Your task to perform on an android device: turn off sleep mode Image 0: 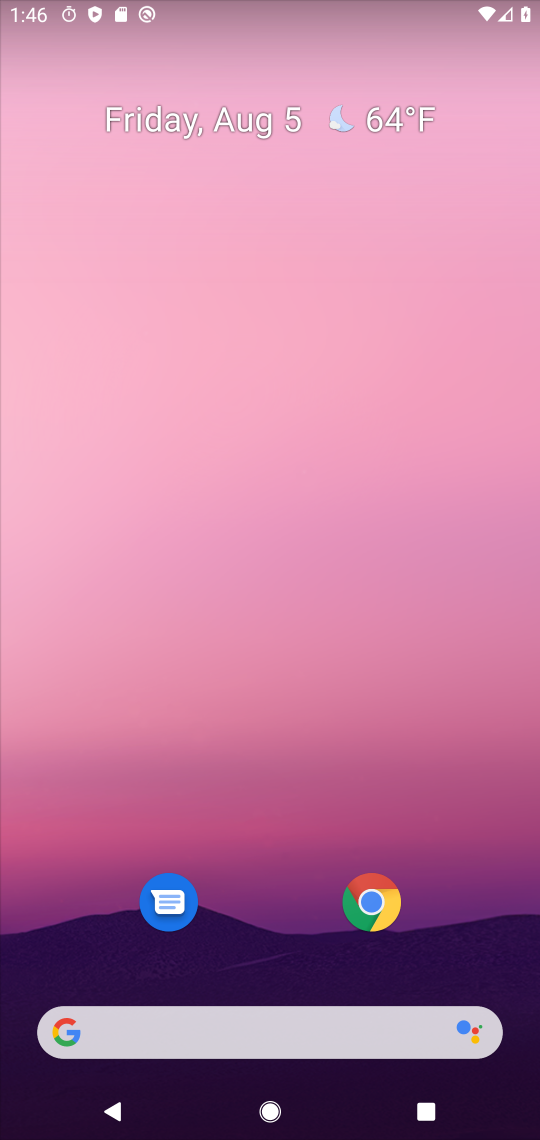
Step 0: press home button
Your task to perform on an android device: turn off sleep mode Image 1: 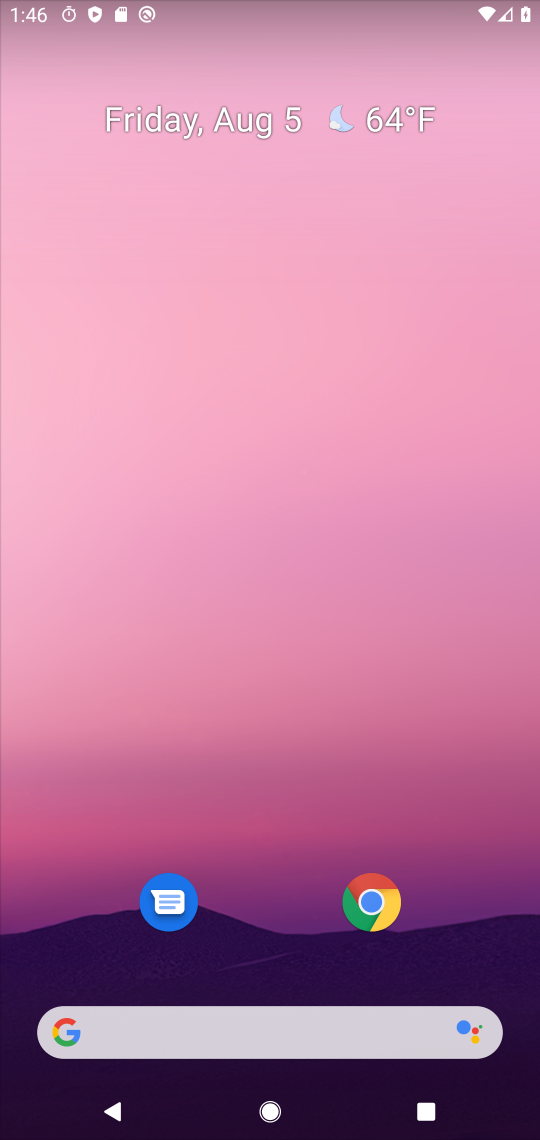
Step 1: click (341, 263)
Your task to perform on an android device: turn off sleep mode Image 2: 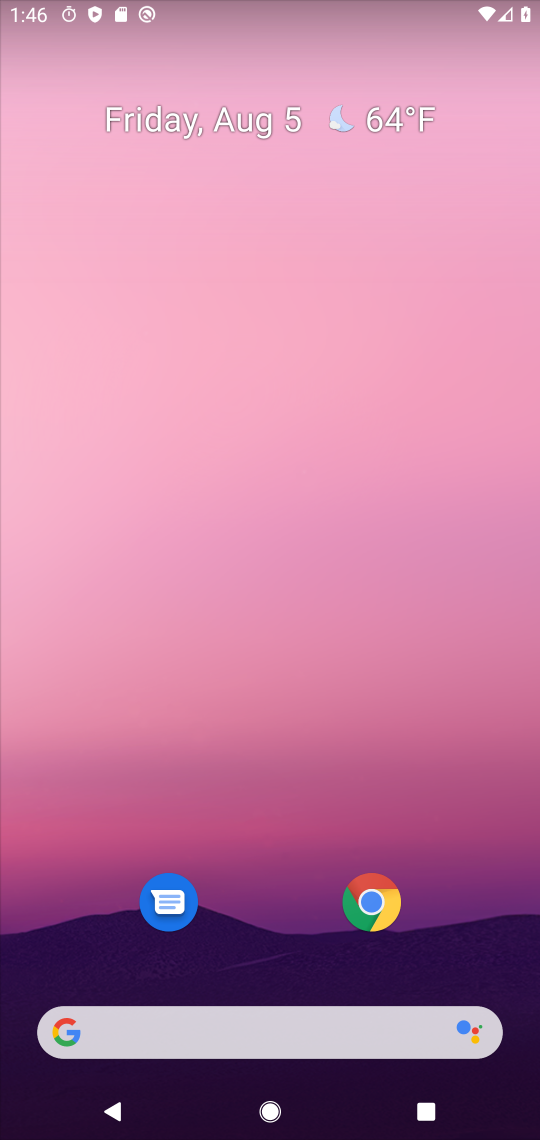
Step 2: drag from (329, 1050) to (294, 97)
Your task to perform on an android device: turn off sleep mode Image 3: 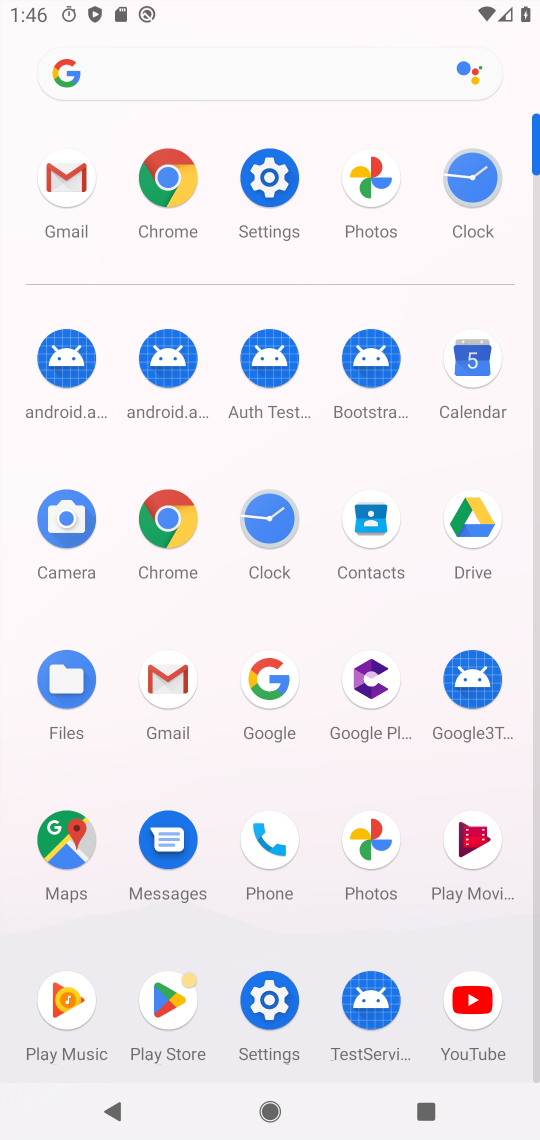
Step 3: click (265, 196)
Your task to perform on an android device: turn off sleep mode Image 4: 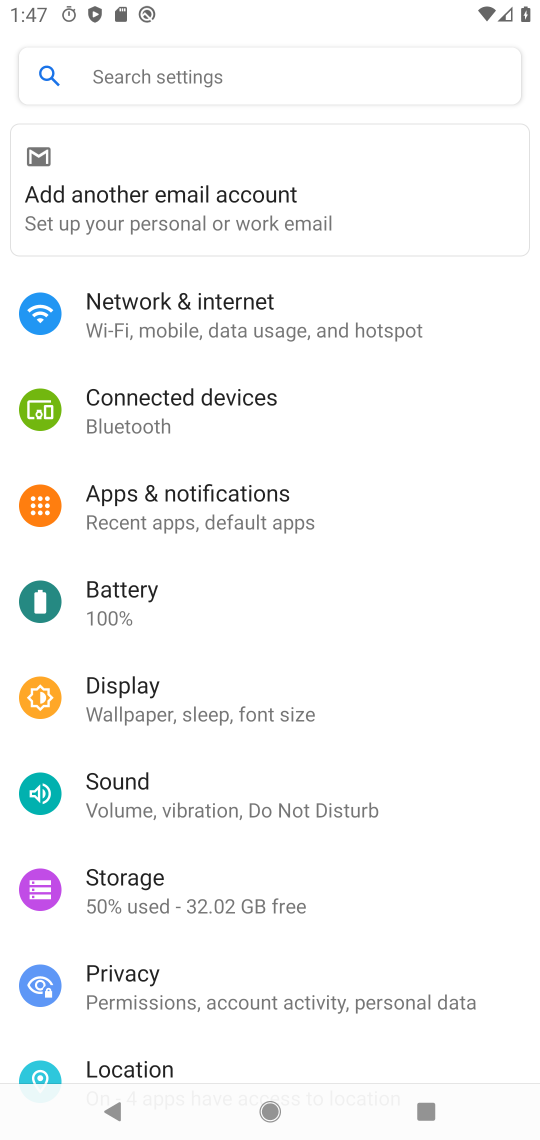
Step 4: click (174, 76)
Your task to perform on an android device: turn off sleep mode Image 5: 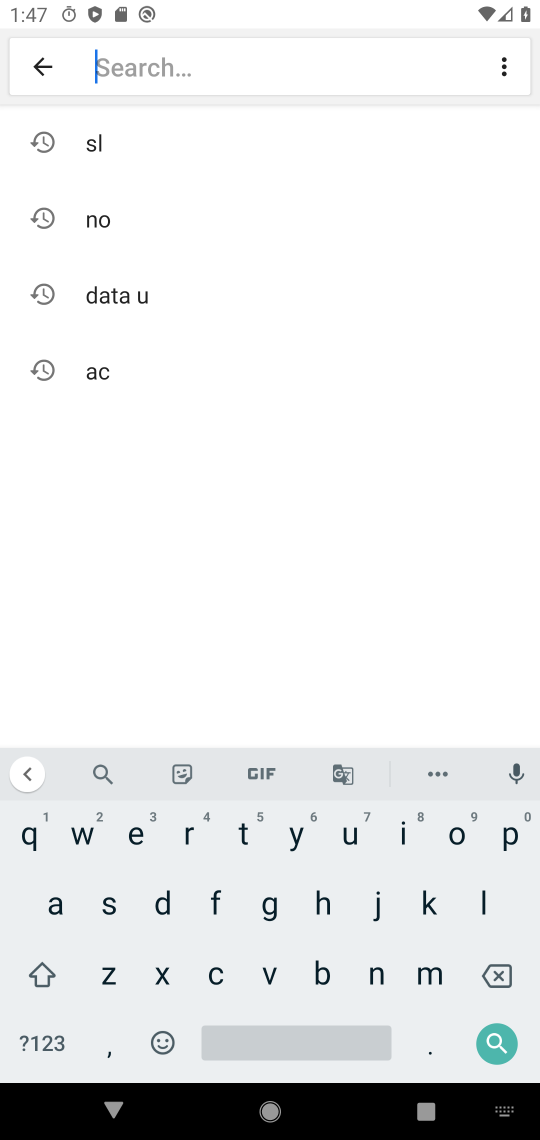
Step 5: click (108, 152)
Your task to perform on an android device: turn off sleep mode Image 6: 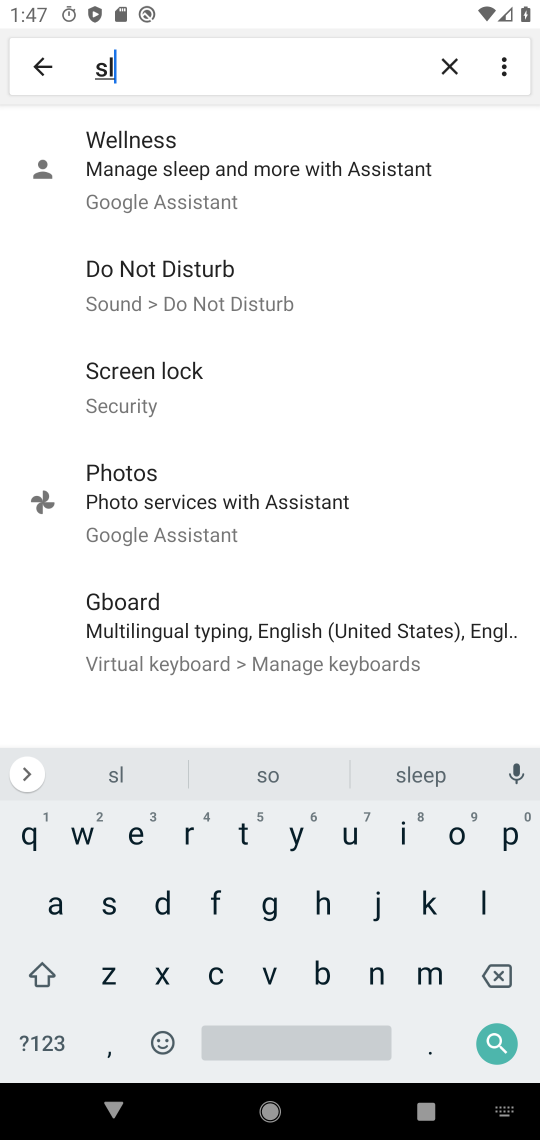
Step 6: click (208, 297)
Your task to perform on an android device: turn off sleep mode Image 7: 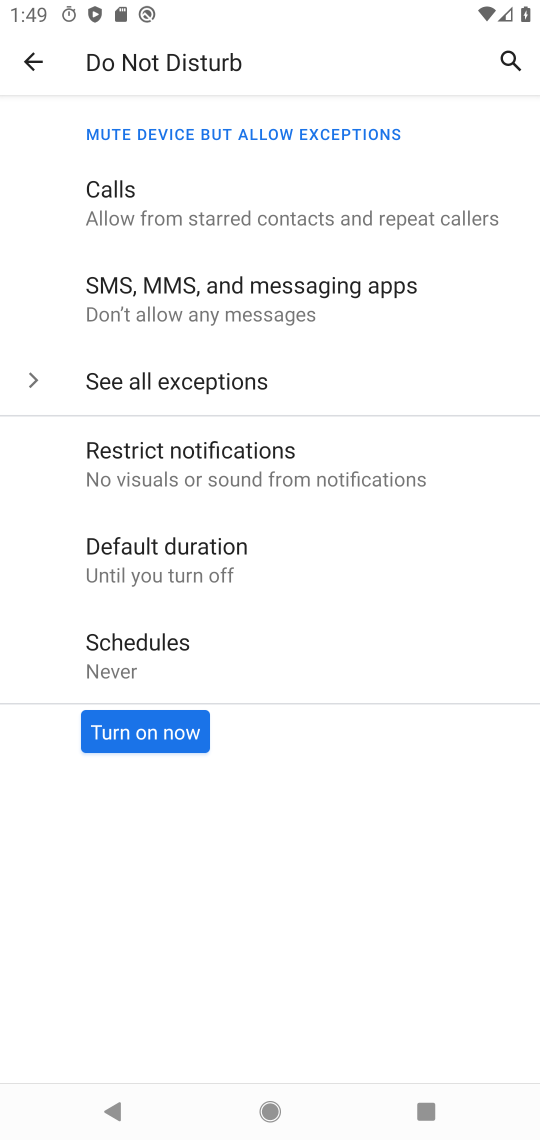
Step 7: task complete